Your task to perform on an android device: Go to display settings Image 0: 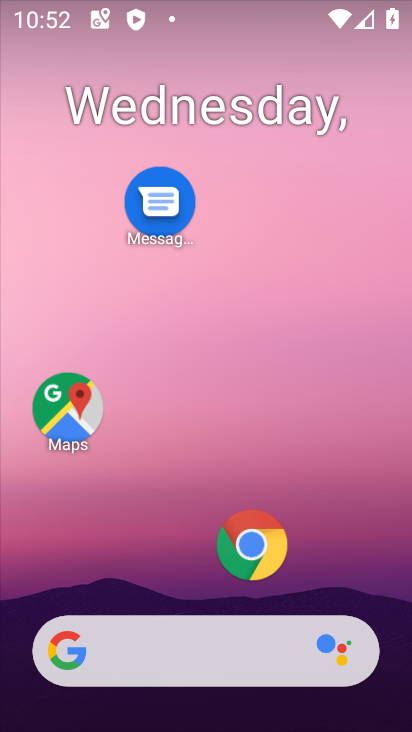
Step 0: drag from (202, 580) to (212, 245)
Your task to perform on an android device: Go to display settings Image 1: 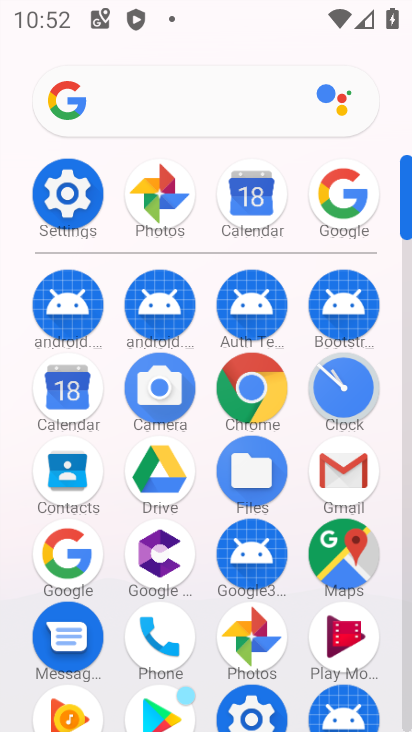
Step 1: click (59, 207)
Your task to perform on an android device: Go to display settings Image 2: 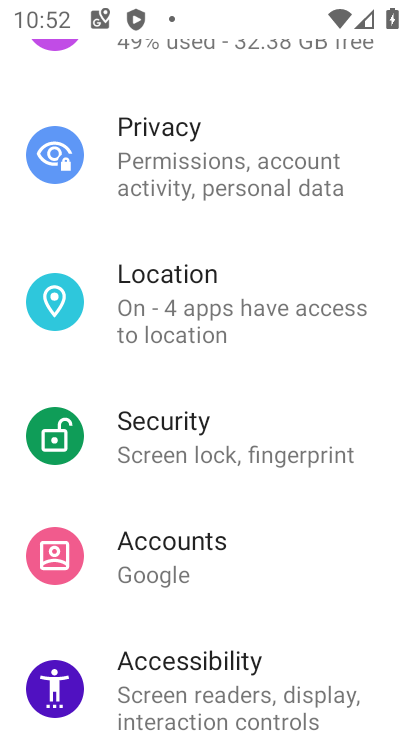
Step 2: drag from (233, 240) to (273, 493)
Your task to perform on an android device: Go to display settings Image 3: 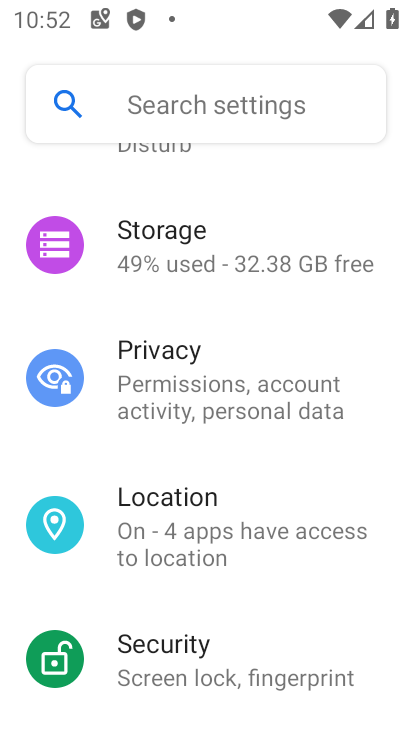
Step 3: drag from (273, 243) to (278, 495)
Your task to perform on an android device: Go to display settings Image 4: 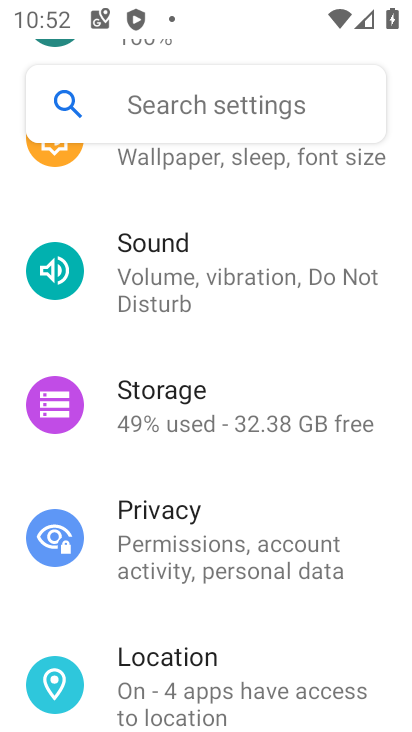
Step 4: drag from (250, 258) to (274, 484)
Your task to perform on an android device: Go to display settings Image 5: 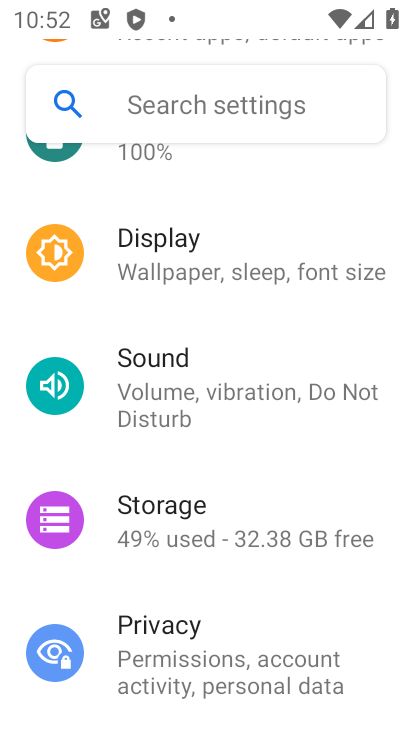
Step 5: click (228, 235)
Your task to perform on an android device: Go to display settings Image 6: 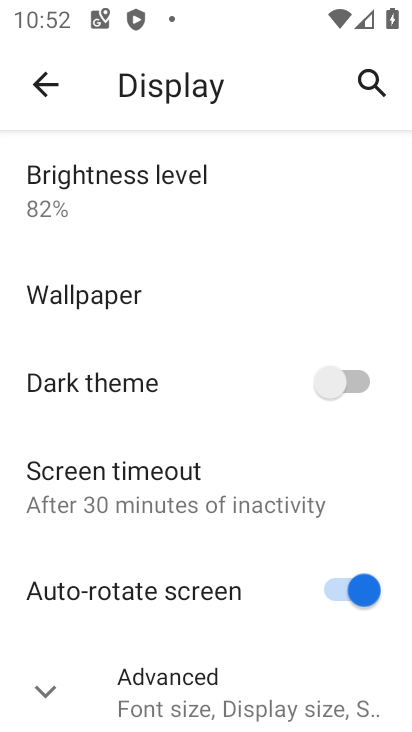
Step 6: task complete